Your task to perform on an android device: toggle notifications settings in the gmail app Image 0: 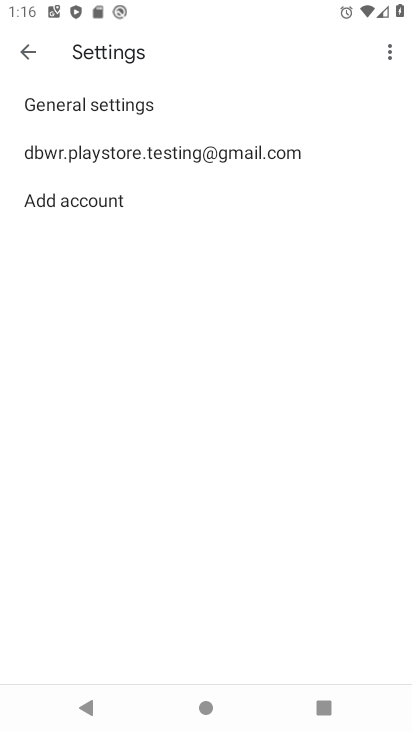
Step 0: press home button
Your task to perform on an android device: toggle notifications settings in the gmail app Image 1: 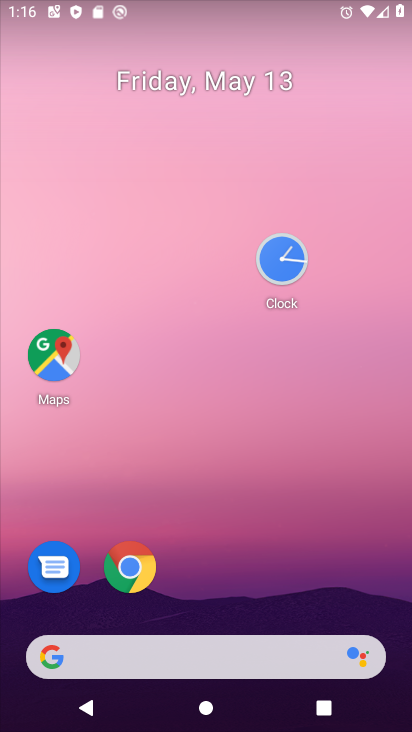
Step 1: drag from (236, 603) to (212, 74)
Your task to perform on an android device: toggle notifications settings in the gmail app Image 2: 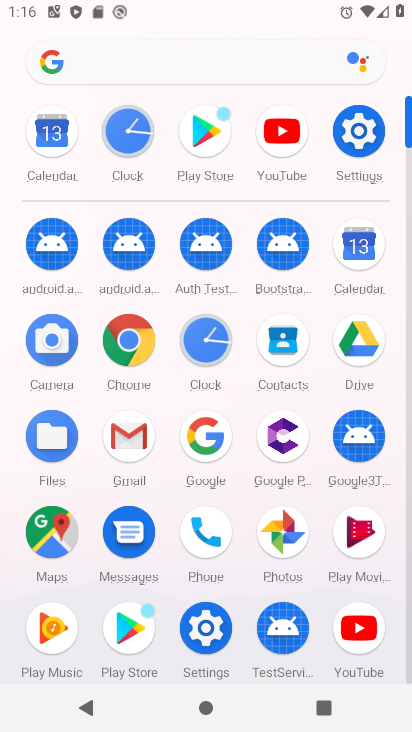
Step 2: click (201, 627)
Your task to perform on an android device: toggle notifications settings in the gmail app Image 3: 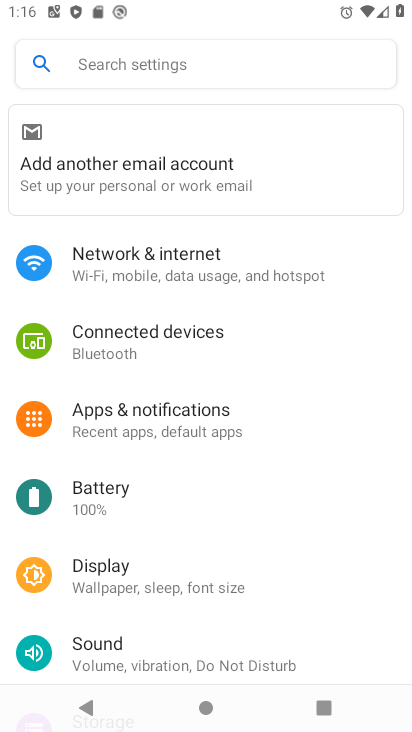
Step 3: press home button
Your task to perform on an android device: toggle notifications settings in the gmail app Image 4: 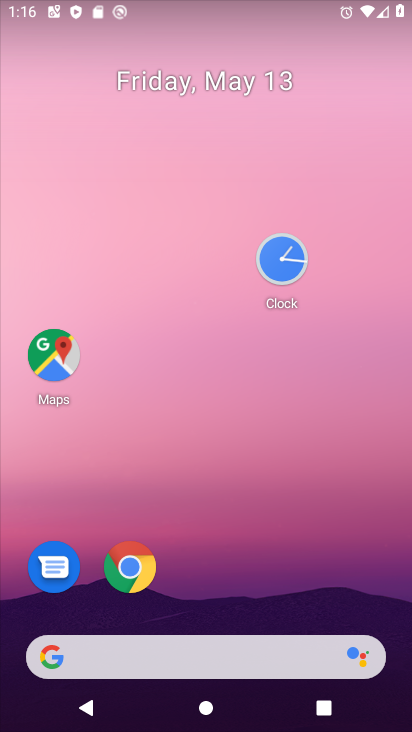
Step 4: drag from (242, 577) to (285, 88)
Your task to perform on an android device: toggle notifications settings in the gmail app Image 5: 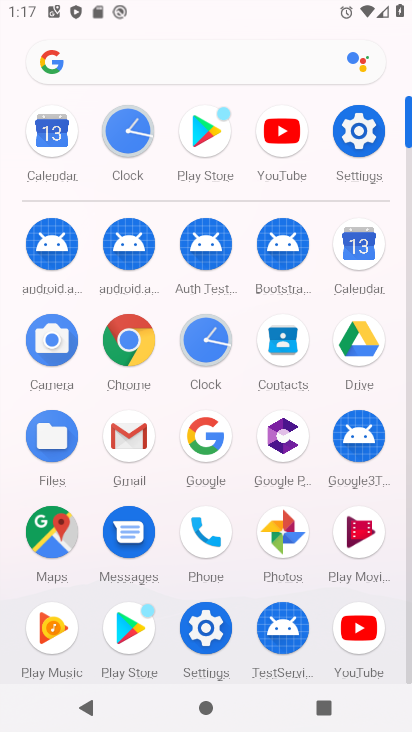
Step 5: click (123, 448)
Your task to perform on an android device: toggle notifications settings in the gmail app Image 6: 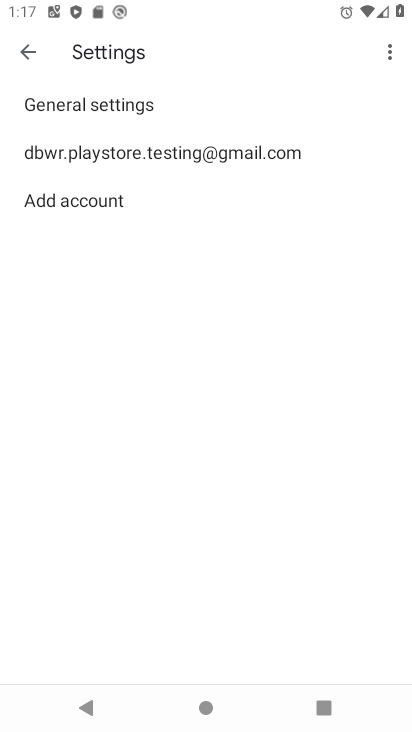
Step 6: click (128, 100)
Your task to perform on an android device: toggle notifications settings in the gmail app Image 7: 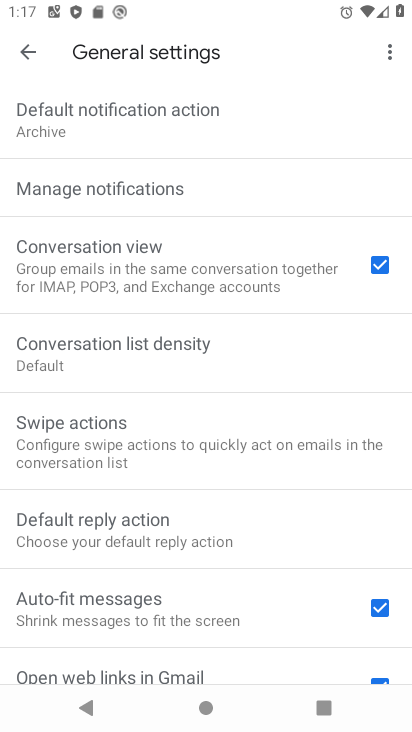
Step 7: click (97, 173)
Your task to perform on an android device: toggle notifications settings in the gmail app Image 8: 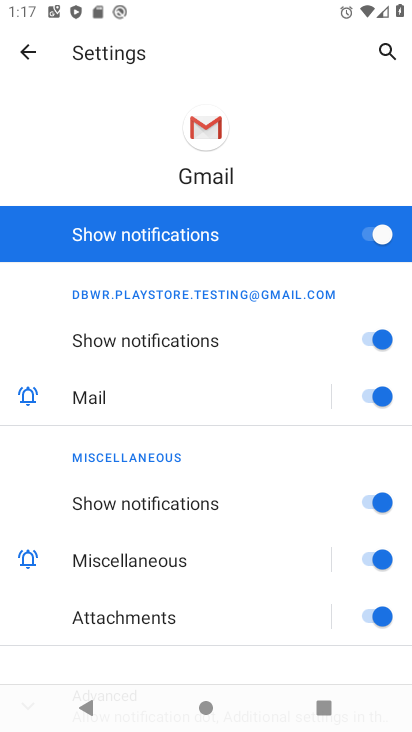
Step 8: click (291, 253)
Your task to perform on an android device: toggle notifications settings in the gmail app Image 9: 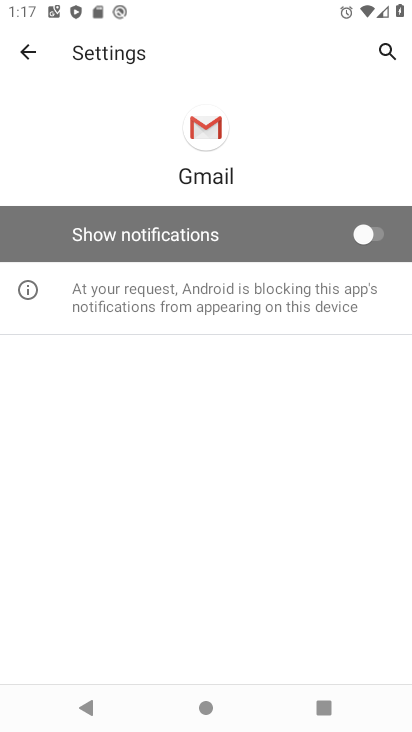
Step 9: task complete